Your task to perform on an android device: install app "DuckDuckGo Privacy Browser" Image 0: 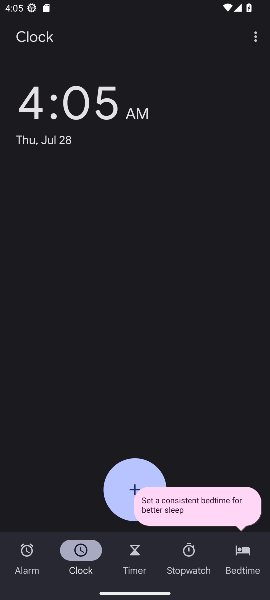
Step 0: press home button
Your task to perform on an android device: install app "DuckDuckGo Privacy Browser" Image 1: 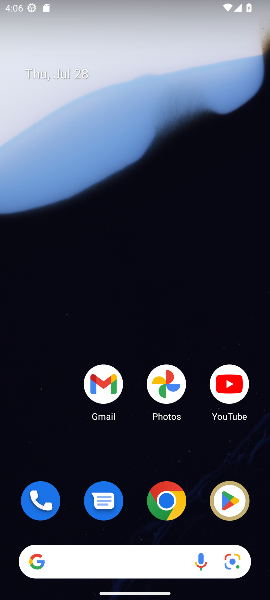
Step 1: click (236, 502)
Your task to perform on an android device: install app "DuckDuckGo Privacy Browser" Image 2: 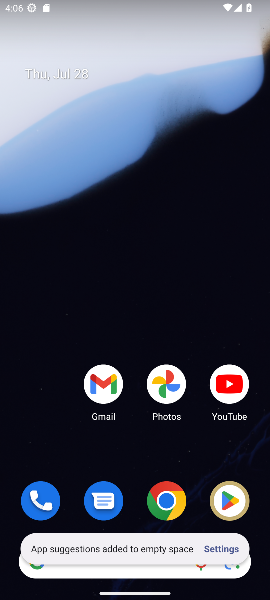
Step 2: click (229, 502)
Your task to perform on an android device: install app "DuckDuckGo Privacy Browser" Image 3: 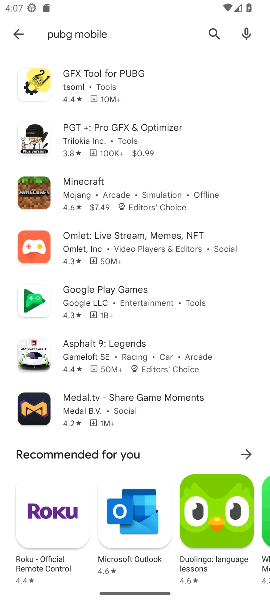
Step 3: click (210, 29)
Your task to perform on an android device: install app "DuckDuckGo Privacy Browser" Image 4: 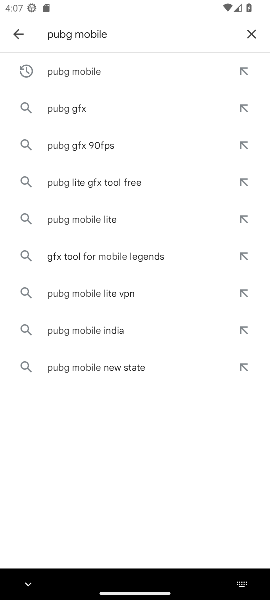
Step 4: click (255, 35)
Your task to perform on an android device: install app "DuckDuckGo Privacy Browser" Image 5: 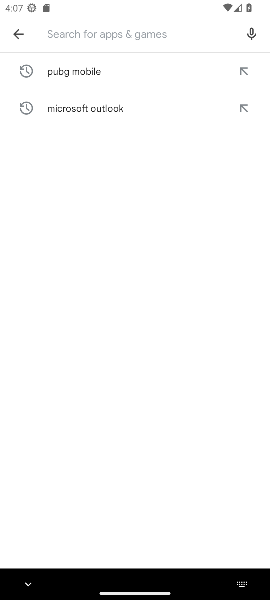
Step 5: type "DuckDuckGo Privacy Browser"
Your task to perform on an android device: install app "DuckDuckGo Privacy Browser" Image 6: 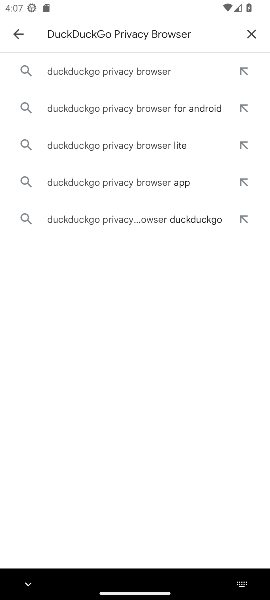
Step 6: click (105, 73)
Your task to perform on an android device: install app "DuckDuckGo Privacy Browser" Image 7: 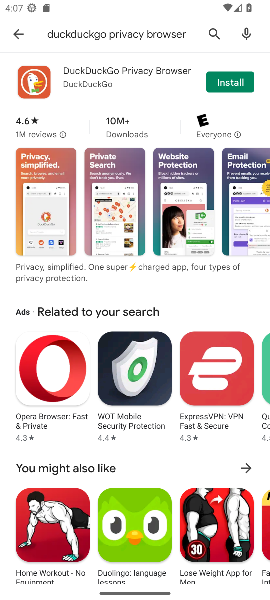
Step 7: click (218, 80)
Your task to perform on an android device: install app "DuckDuckGo Privacy Browser" Image 8: 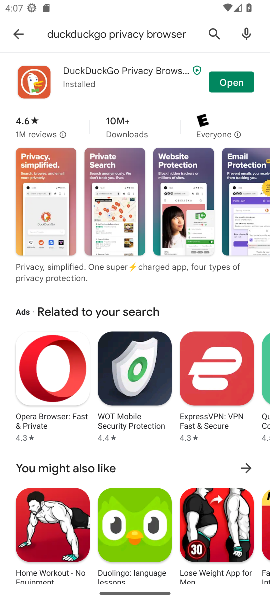
Step 8: task complete